Your task to perform on an android device: create a new album in the google photos Image 0: 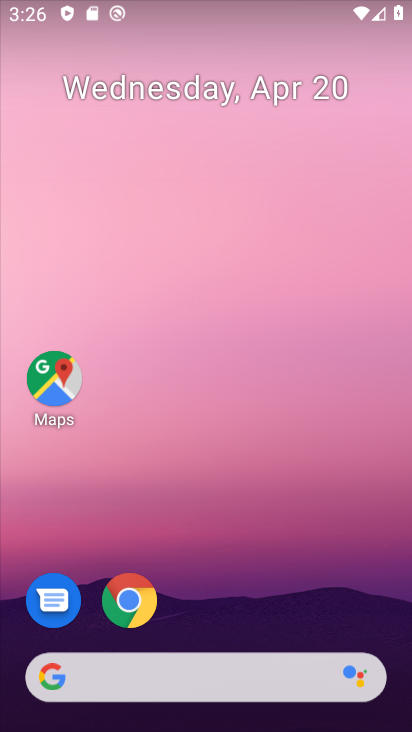
Step 0: drag from (286, 377) to (274, 109)
Your task to perform on an android device: create a new album in the google photos Image 1: 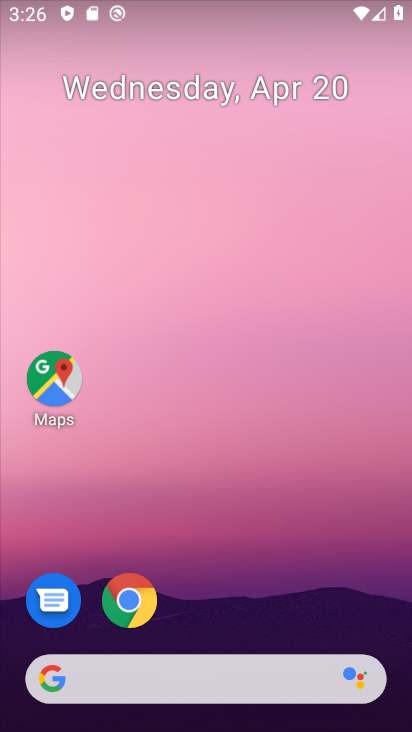
Step 1: drag from (246, 585) to (235, 179)
Your task to perform on an android device: create a new album in the google photos Image 2: 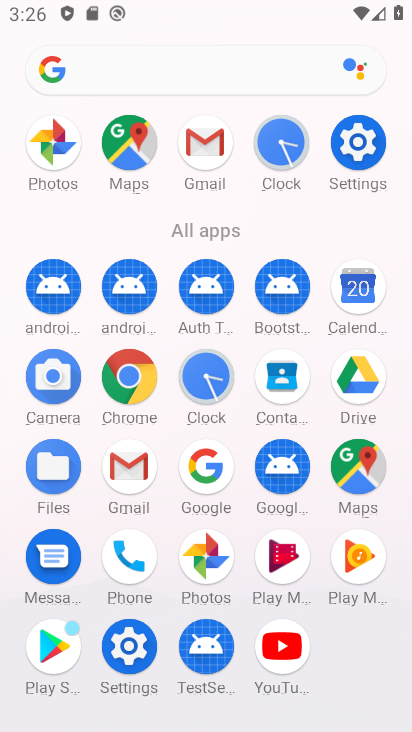
Step 2: click (210, 554)
Your task to perform on an android device: create a new album in the google photos Image 3: 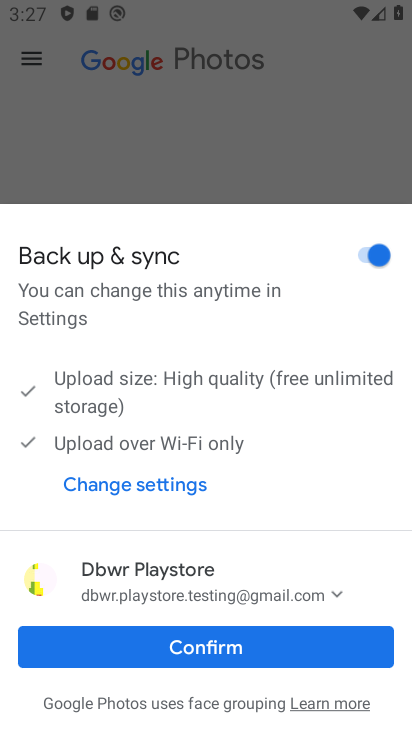
Step 3: click (319, 649)
Your task to perform on an android device: create a new album in the google photos Image 4: 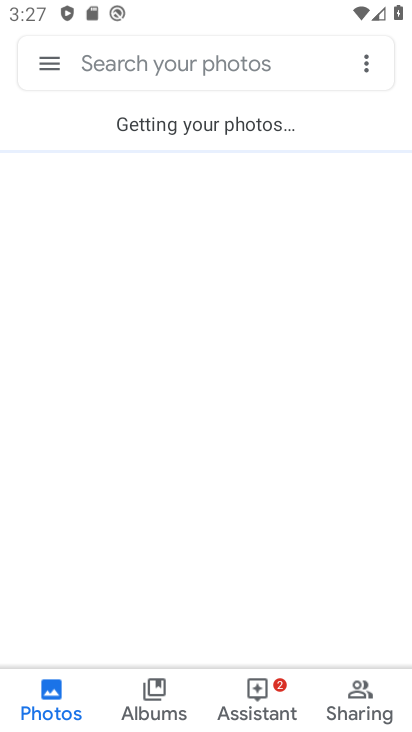
Step 4: click (179, 698)
Your task to perform on an android device: create a new album in the google photos Image 5: 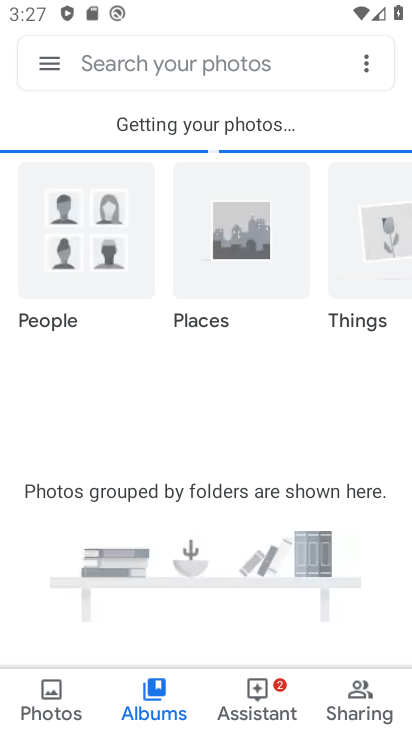
Step 5: click (364, 63)
Your task to perform on an android device: create a new album in the google photos Image 6: 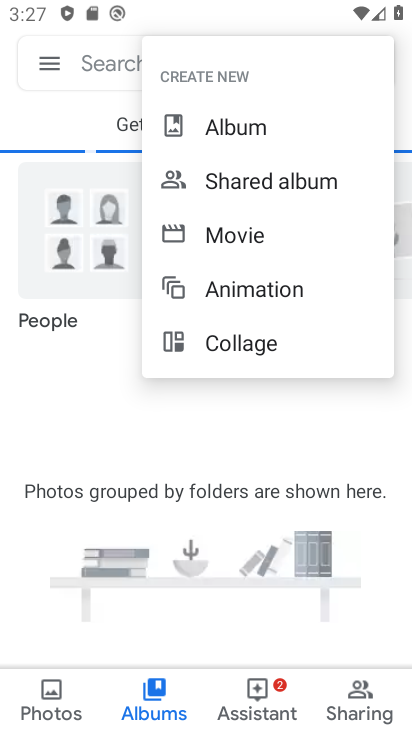
Step 6: click (211, 124)
Your task to perform on an android device: create a new album in the google photos Image 7: 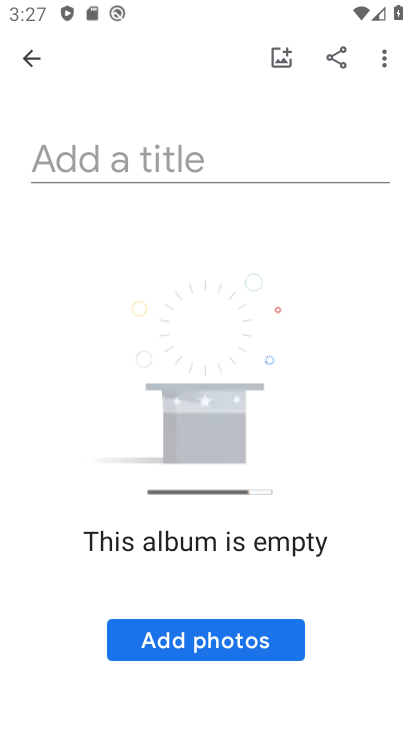
Step 7: click (179, 166)
Your task to perform on an android device: create a new album in the google photos Image 8: 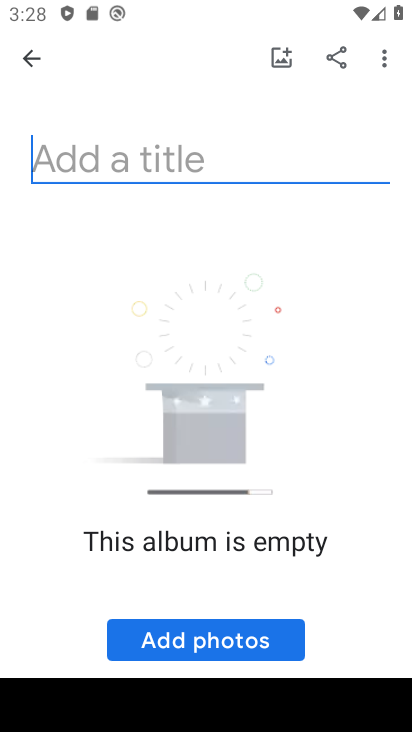
Step 8: type "ujala"
Your task to perform on an android device: create a new album in the google photos Image 9: 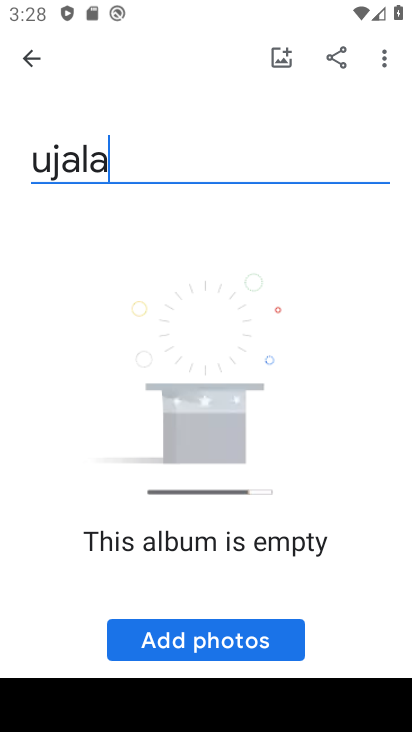
Step 9: click (250, 628)
Your task to perform on an android device: create a new album in the google photos Image 10: 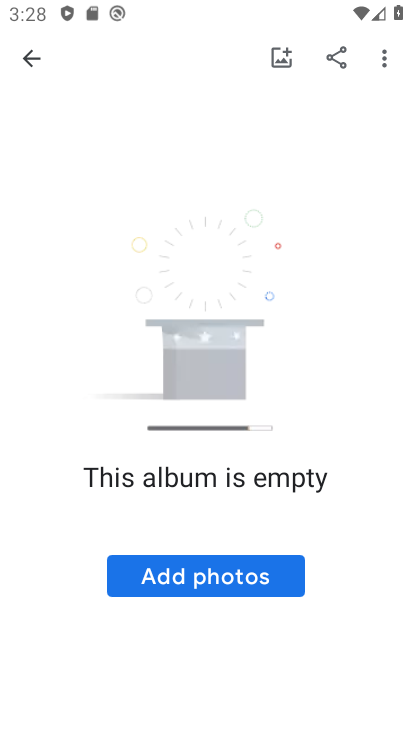
Step 10: click (222, 588)
Your task to perform on an android device: create a new album in the google photos Image 11: 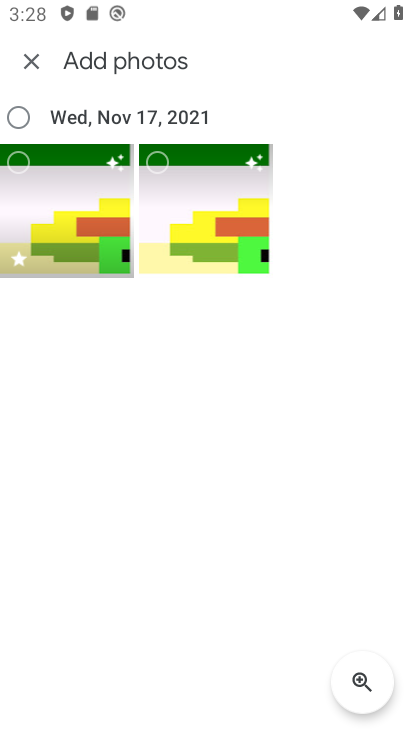
Step 11: click (35, 198)
Your task to perform on an android device: create a new album in the google photos Image 12: 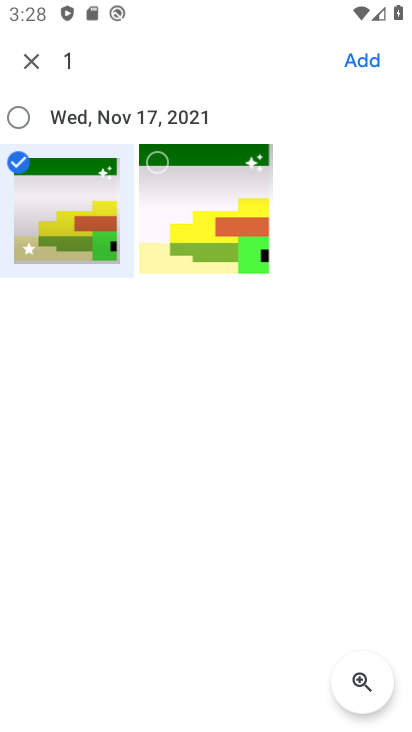
Step 12: click (361, 63)
Your task to perform on an android device: create a new album in the google photos Image 13: 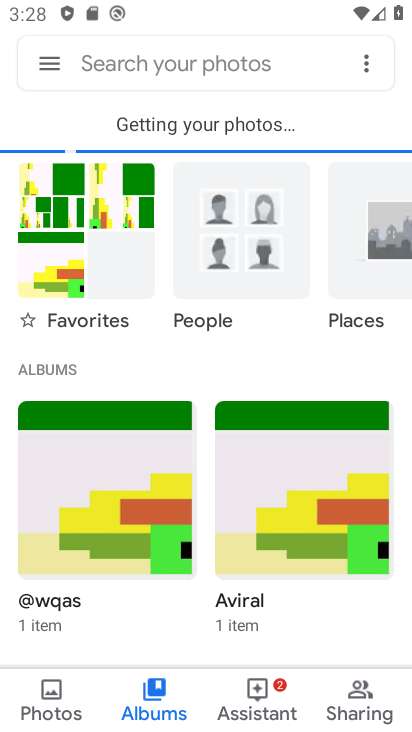
Step 13: task complete